Your task to perform on an android device: How do I get to the nearest Lowe's? Image 0: 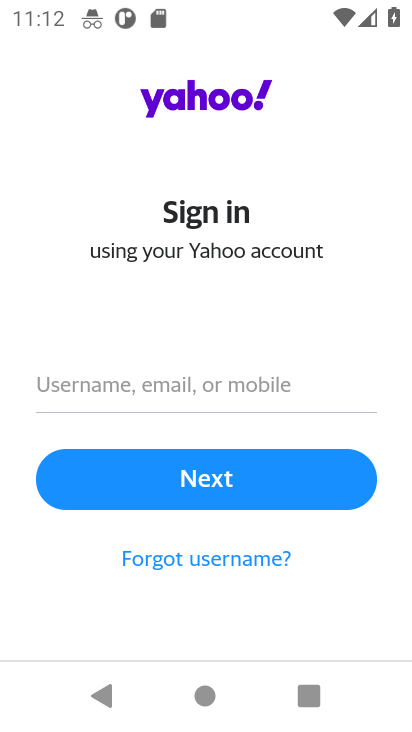
Step 0: press home button
Your task to perform on an android device: How do I get to the nearest Lowe's? Image 1: 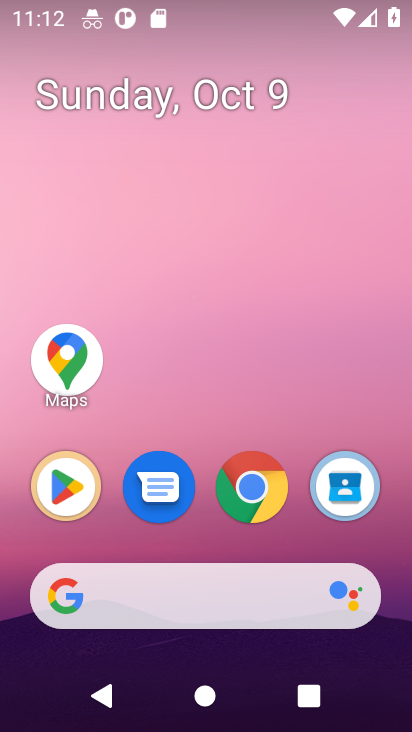
Step 1: click (261, 488)
Your task to perform on an android device: How do I get to the nearest Lowe's? Image 2: 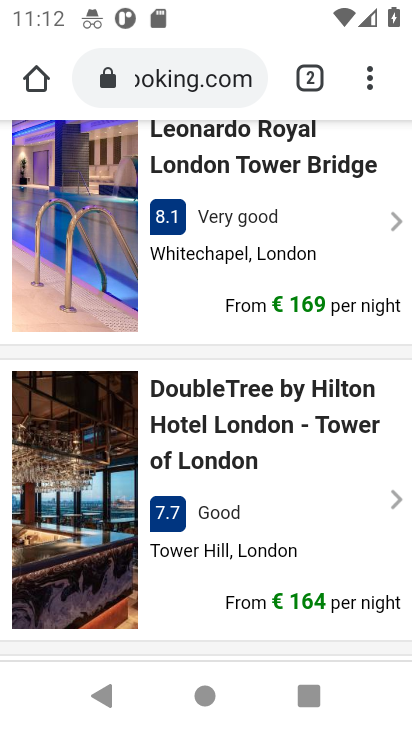
Step 2: click (216, 81)
Your task to perform on an android device: How do I get to the nearest Lowe's? Image 3: 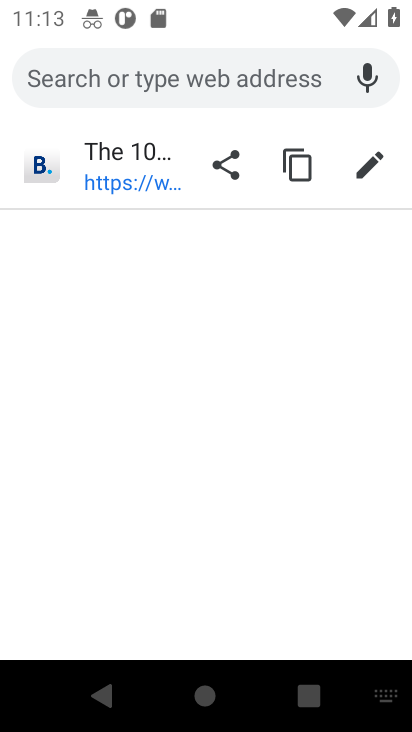
Step 3: type "nearesr lowe's"
Your task to perform on an android device: How do I get to the nearest Lowe's? Image 4: 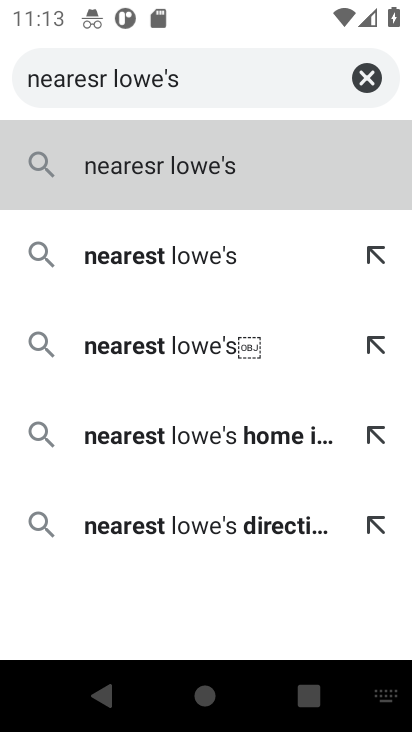
Step 4: press enter
Your task to perform on an android device: How do I get to the nearest Lowe's? Image 5: 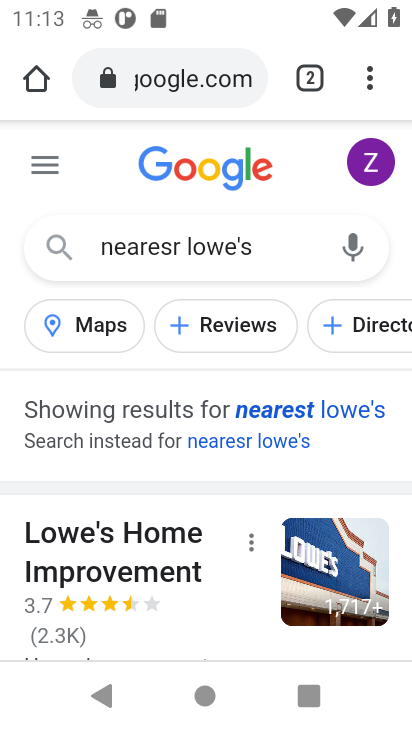
Step 5: drag from (214, 522) to (214, 178)
Your task to perform on an android device: How do I get to the nearest Lowe's? Image 6: 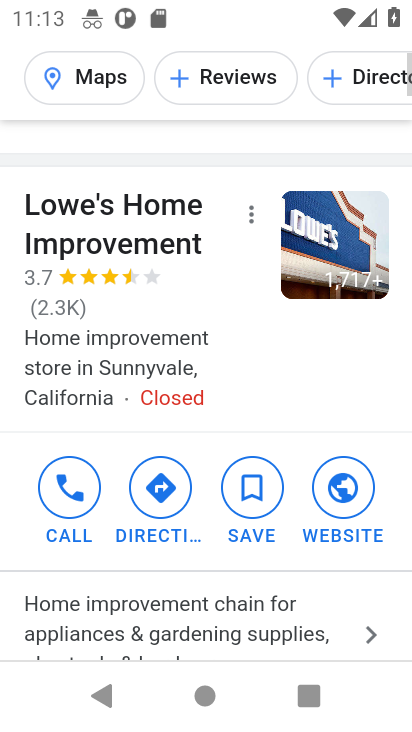
Step 6: drag from (224, 545) to (221, 209)
Your task to perform on an android device: How do I get to the nearest Lowe's? Image 7: 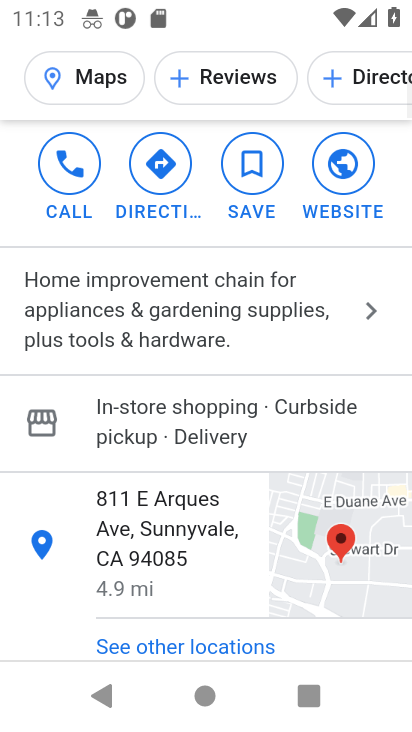
Step 7: drag from (216, 509) to (193, 191)
Your task to perform on an android device: How do I get to the nearest Lowe's? Image 8: 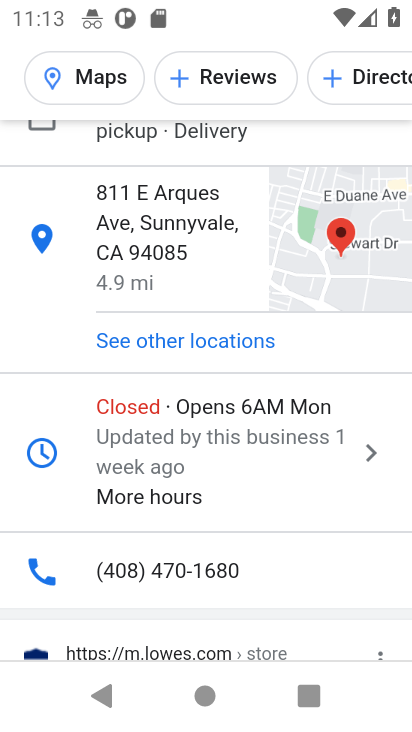
Step 8: drag from (200, 550) to (198, 279)
Your task to perform on an android device: How do I get to the nearest Lowe's? Image 9: 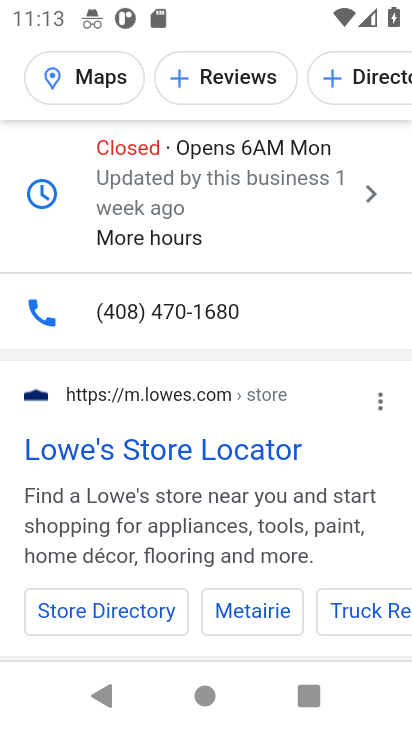
Step 9: click (190, 449)
Your task to perform on an android device: How do I get to the nearest Lowe's? Image 10: 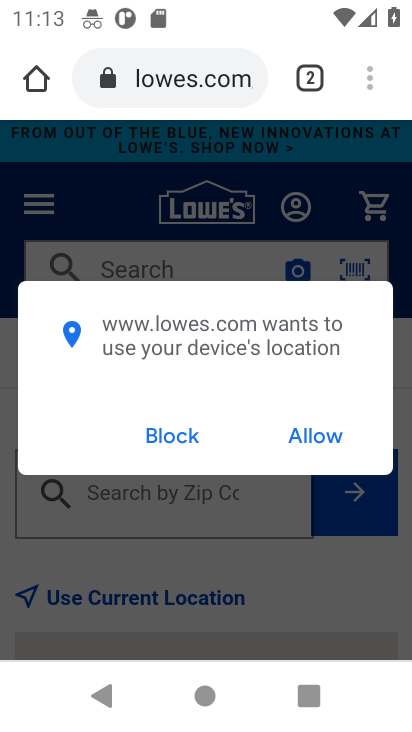
Step 10: click (318, 444)
Your task to perform on an android device: How do I get to the nearest Lowe's? Image 11: 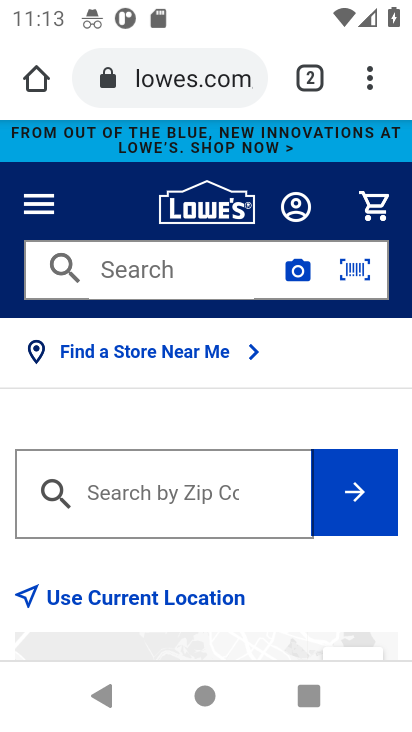
Step 11: drag from (300, 603) to (273, 421)
Your task to perform on an android device: How do I get to the nearest Lowe's? Image 12: 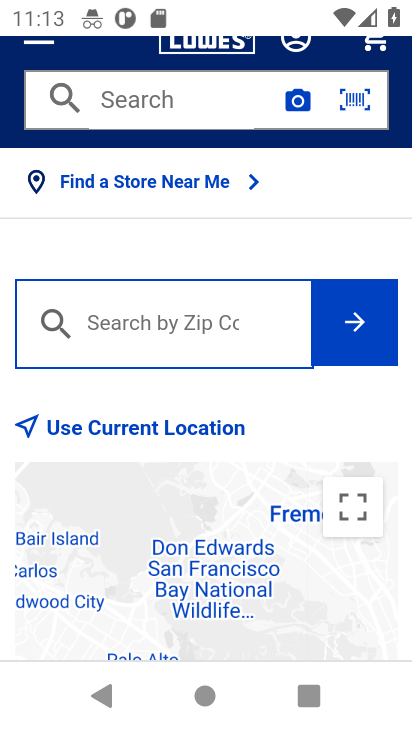
Step 12: click (159, 427)
Your task to perform on an android device: How do I get to the nearest Lowe's? Image 13: 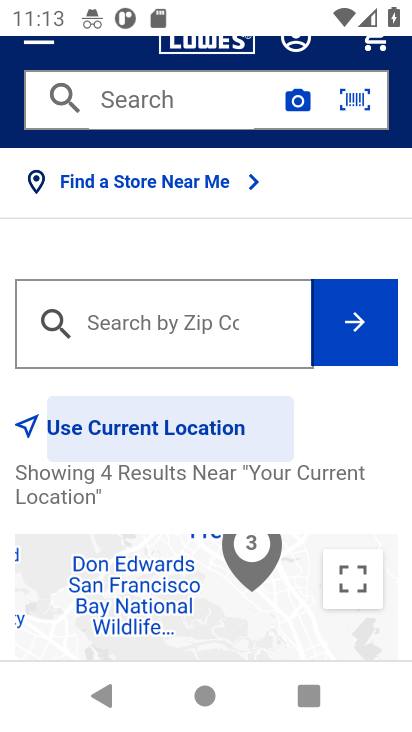
Step 13: task complete